Your task to perform on an android device: Open ESPN.com Image 0: 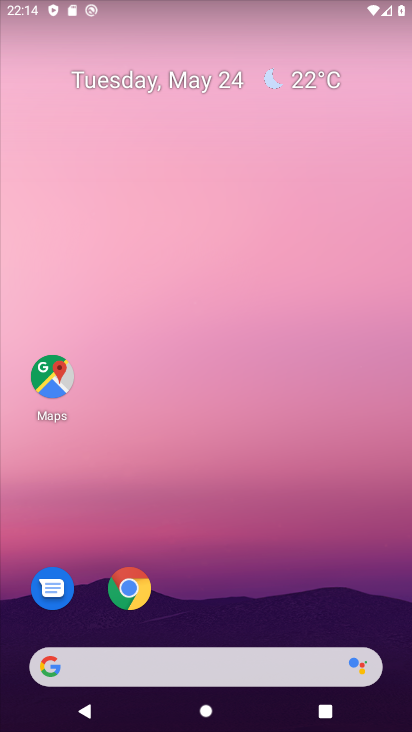
Step 0: click (124, 577)
Your task to perform on an android device: Open ESPN.com Image 1: 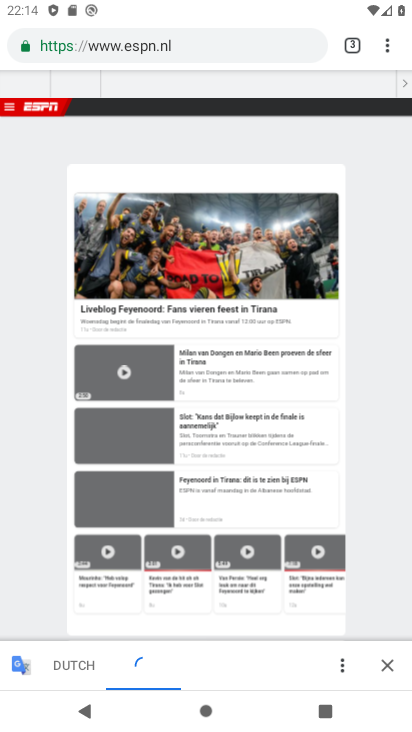
Step 1: task complete